Your task to perform on an android device: Open Google Maps and go to "Timeline" Image 0: 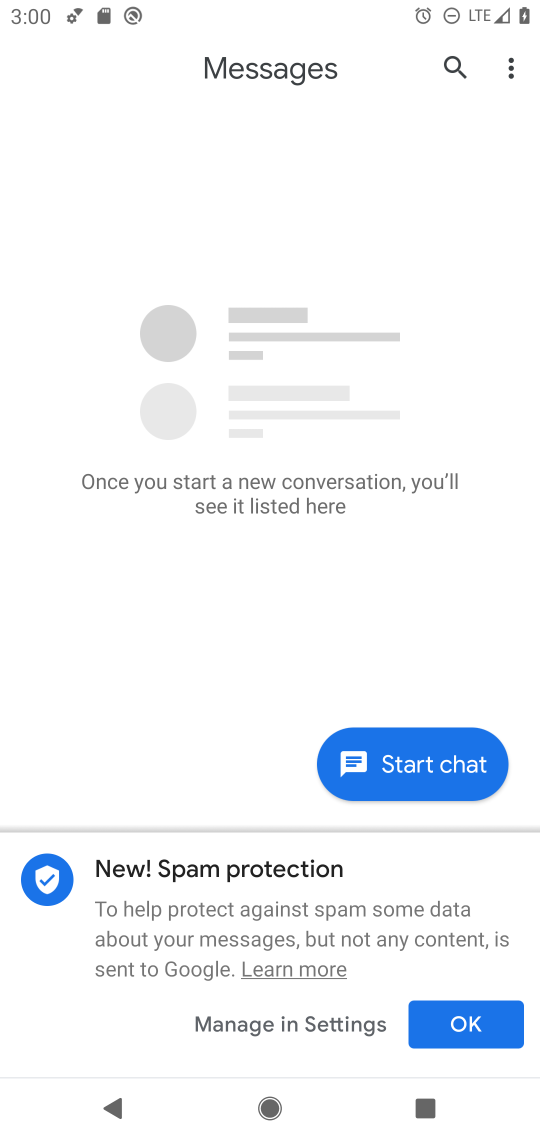
Step 0: press home button
Your task to perform on an android device: Open Google Maps and go to "Timeline" Image 1: 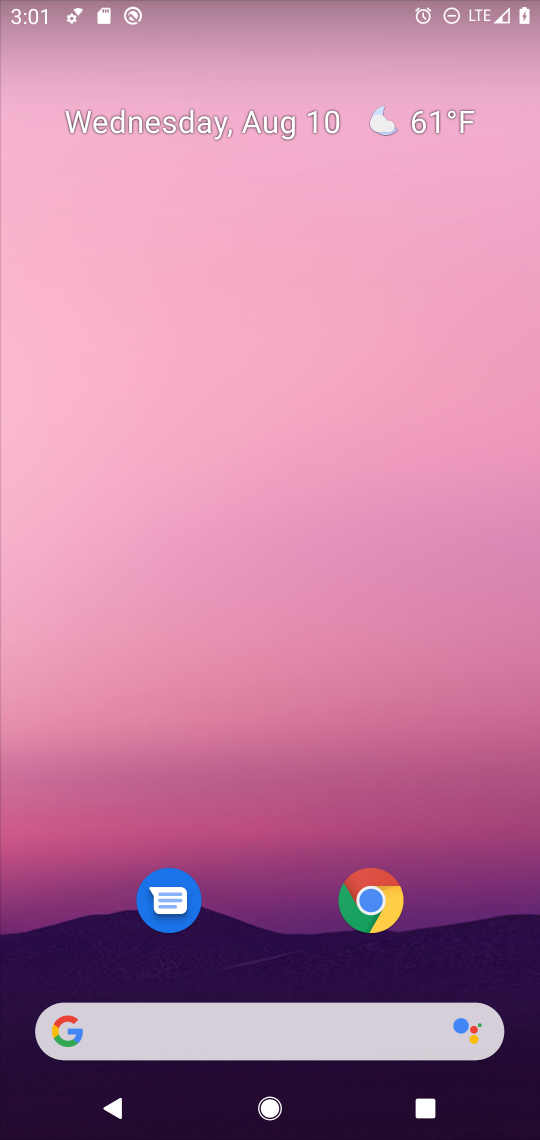
Step 1: drag from (260, 892) to (252, 0)
Your task to perform on an android device: Open Google Maps and go to "Timeline" Image 2: 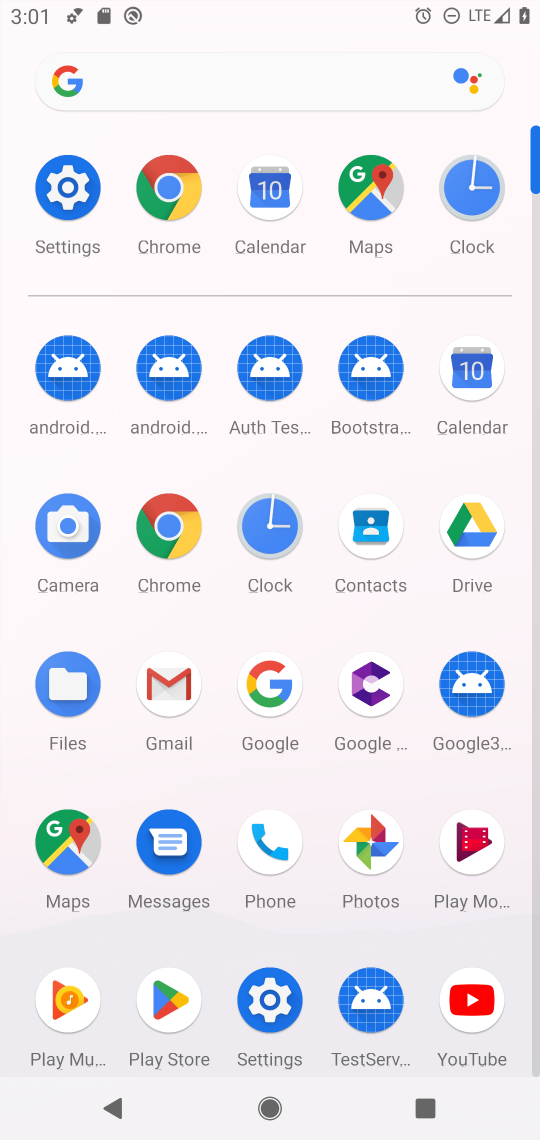
Step 2: click (362, 185)
Your task to perform on an android device: Open Google Maps and go to "Timeline" Image 3: 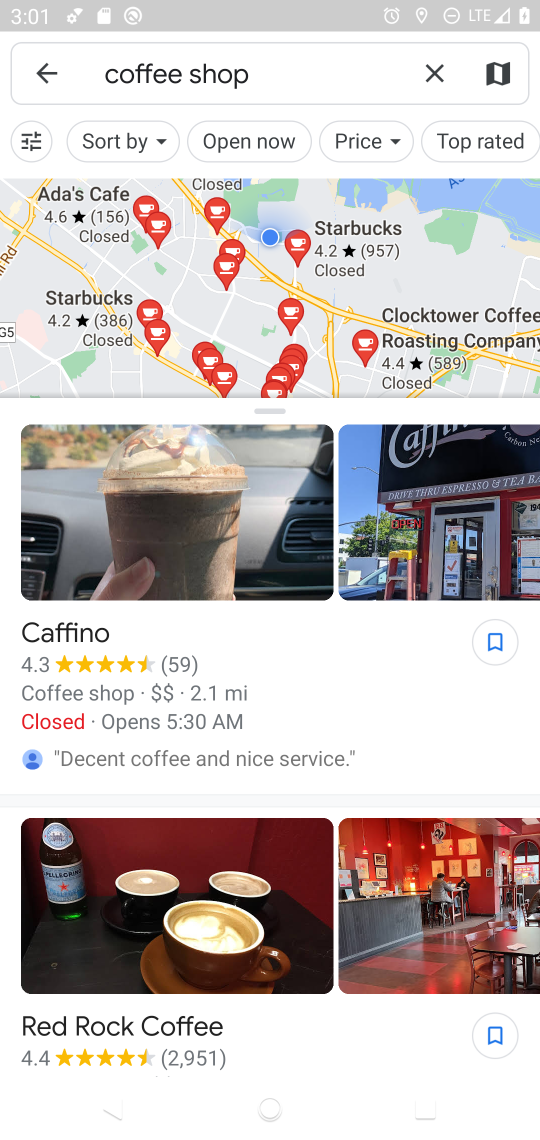
Step 3: click (433, 66)
Your task to perform on an android device: Open Google Maps and go to "Timeline" Image 4: 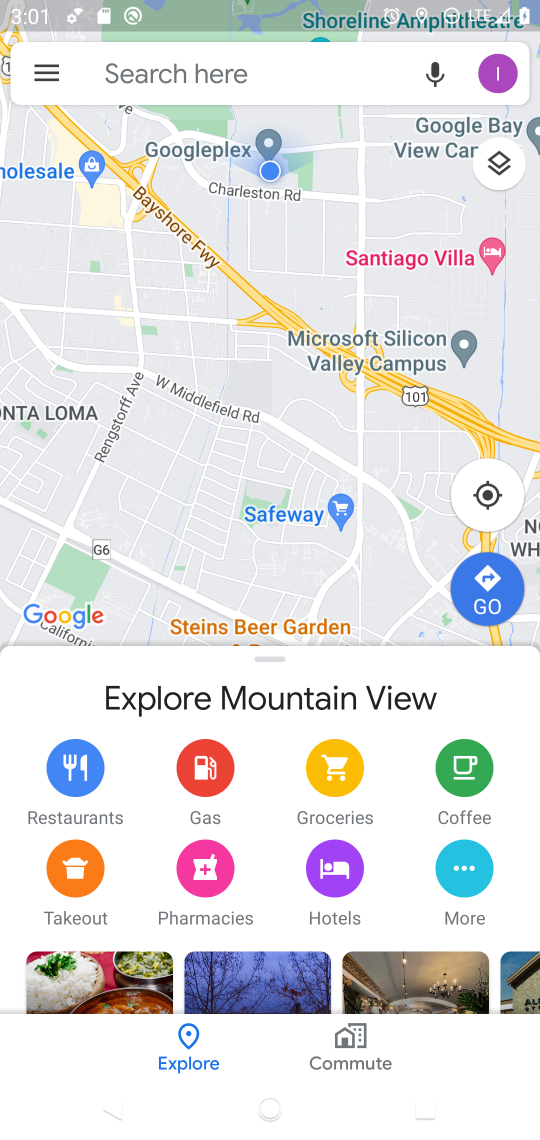
Step 4: click (42, 79)
Your task to perform on an android device: Open Google Maps and go to "Timeline" Image 5: 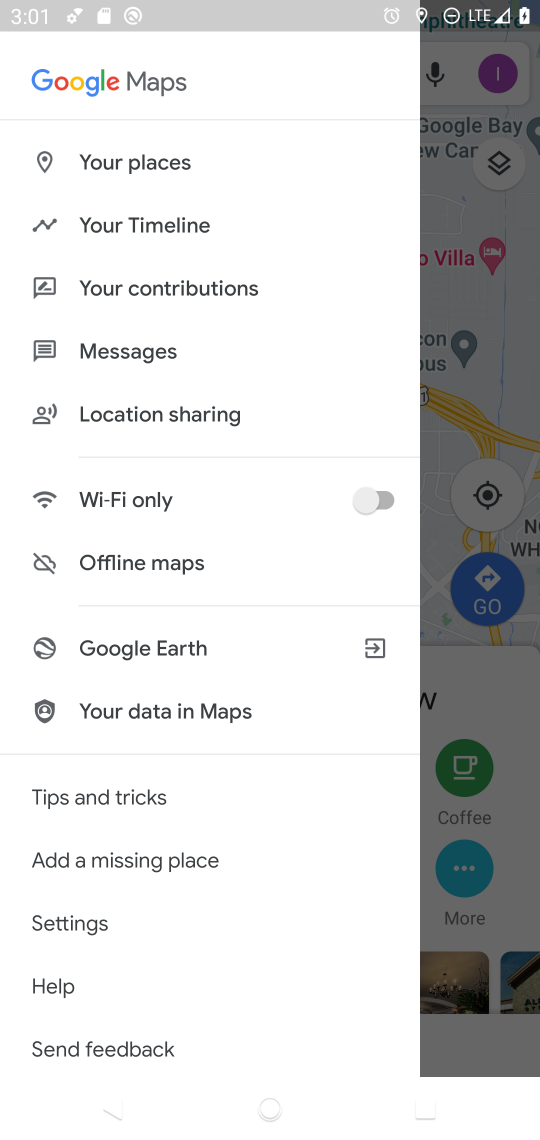
Step 5: click (169, 221)
Your task to perform on an android device: Open Google Maps and go to "Timeline" Image 6: 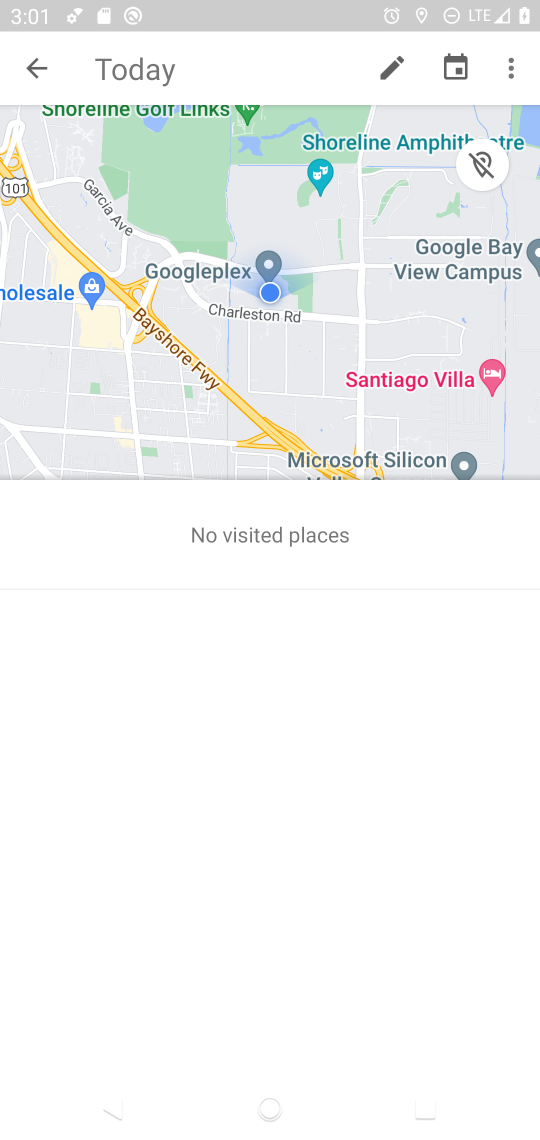
Step 6: task complete